Your task to perform on an android device: Show me the alarms in the clock app Image 0: 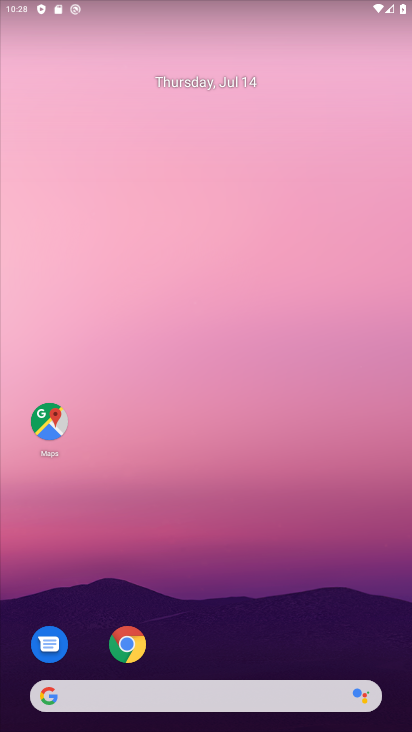
Step 0: drag from (203, 694) to (253, 125)
Your task to perform on an android device: Show me the alarms in the clock app Image 1: 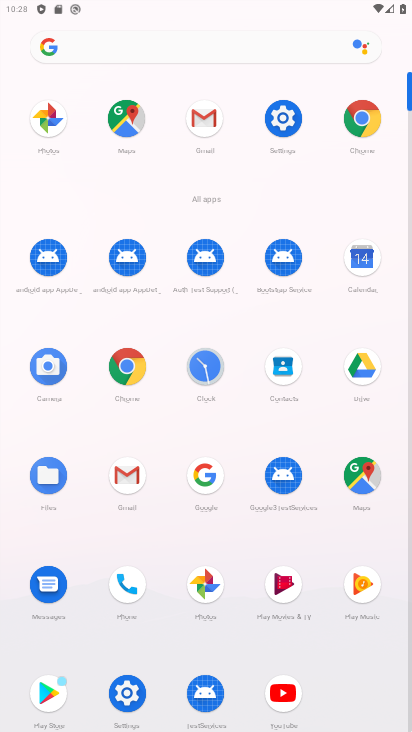
Step 1: click (207, 378)
Your task to perform on an android device: Show me the alarms in the clock app Image 2: 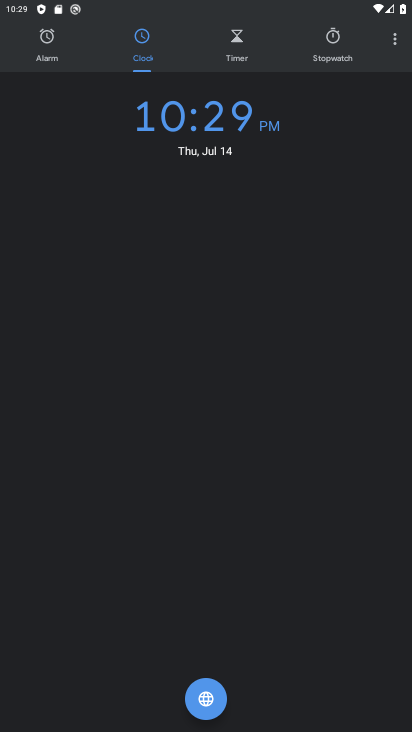
Step 2: click (49, 40)
Your task to perform on an android device: Show me the alarms in the clock app Image 3: 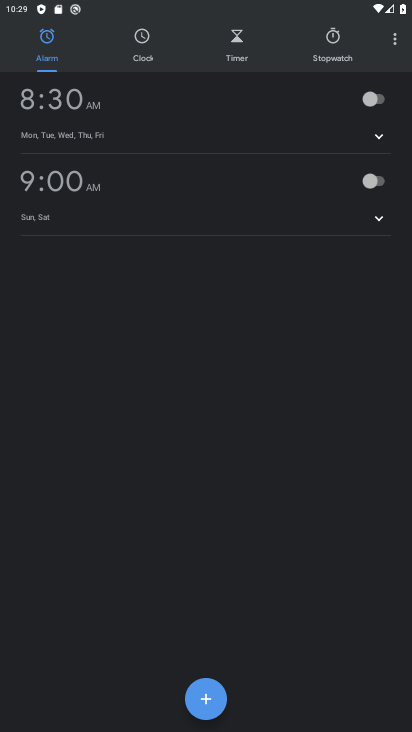
Step 3: task complete